Your task to perform on an android device: Search for "logitech g933" on ebay, select the first entry, add it to the cart, then select checkout. Image 0: 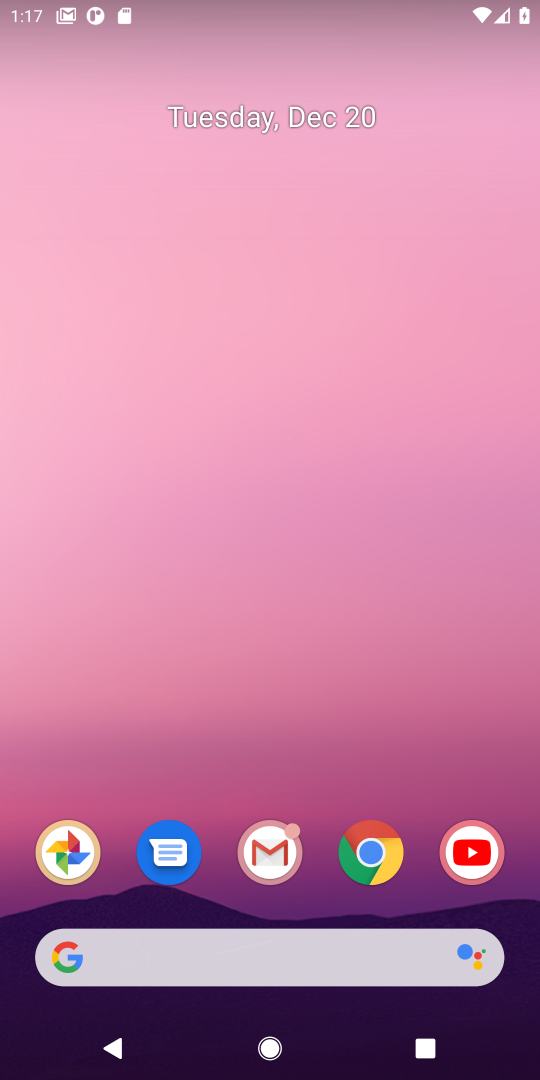
Step 0: click (372, 862)
Your task to perform on an android device: Search for "logitech g933" on ebay, select the first entry, add it to the cart, then select checkout. Image 1: 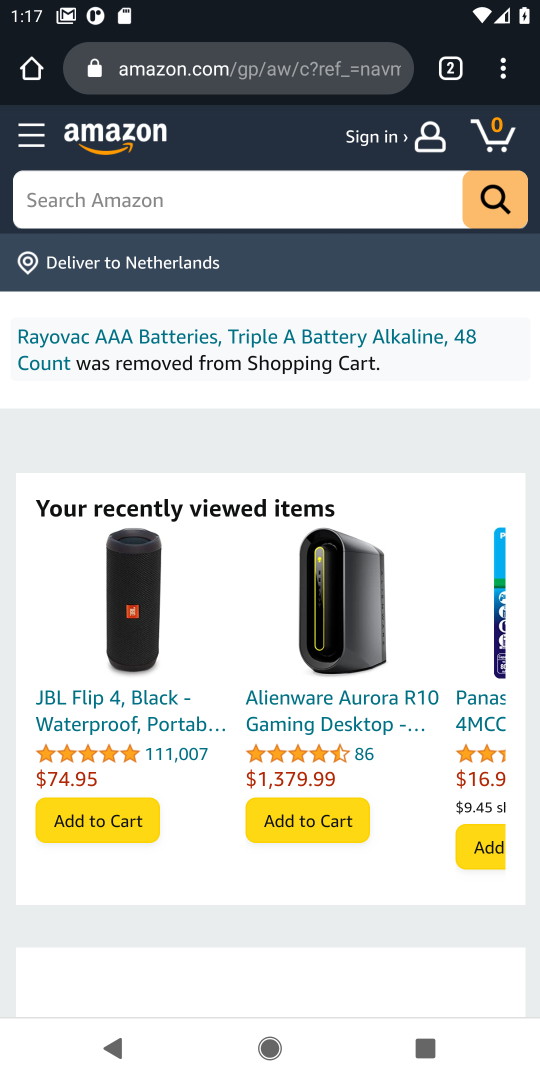
Step 1: click (198, 79)
Your task to perform on an android device: Search for "logitech g933" on ebay, select the first entry, add it to the cart, then select checkout. Image 2: 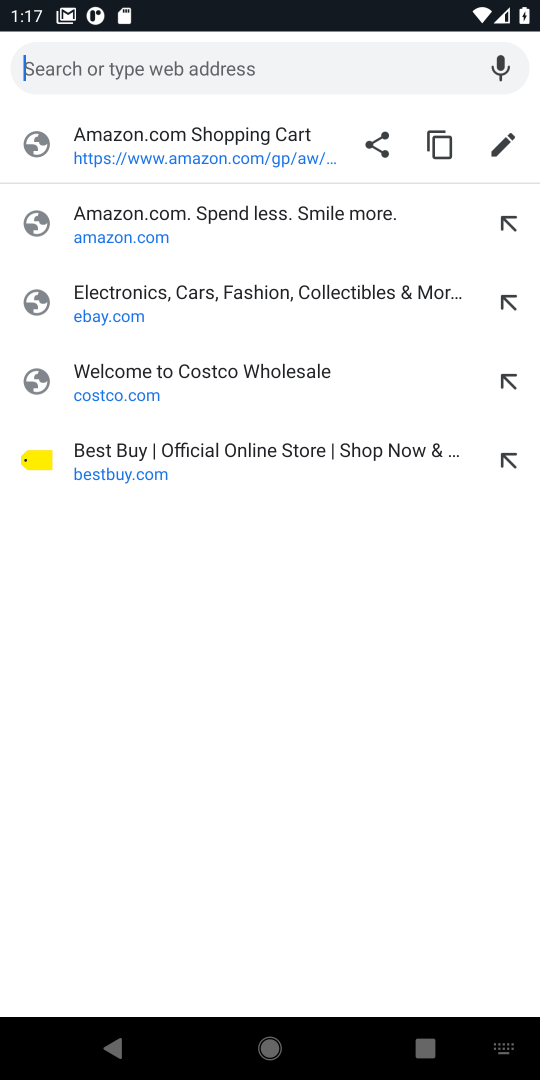
Step 2: click (111, 303)
Your task to perform on an android device: Search for "logitech g933" on ebay, select the first entry, add it to the cart, then select checkout. Image 3: 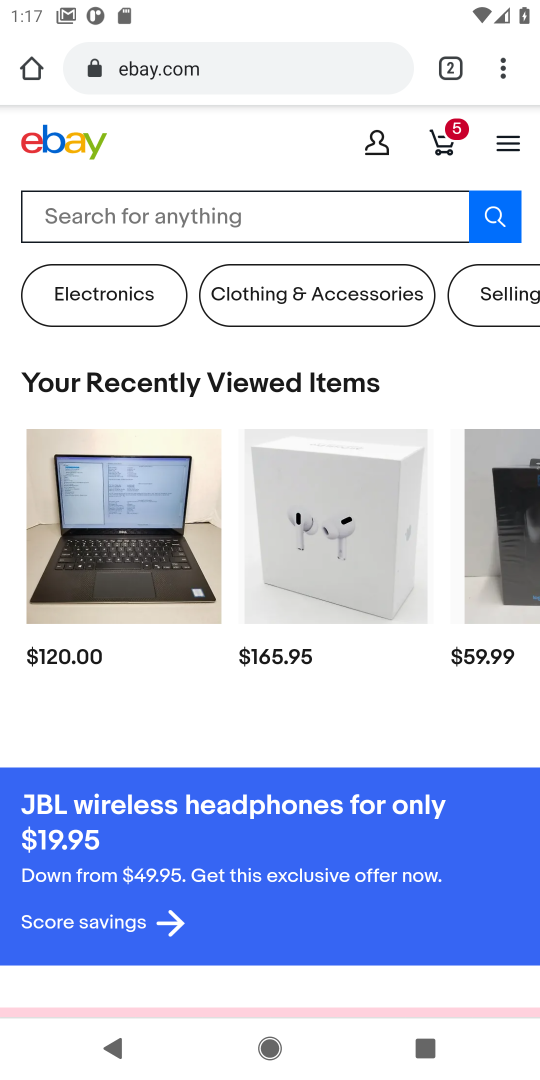
Step 3: click (90, 209)
Your task to perform on an android device: Search for "logitech g933" on ebay, select the first entry, add it to the cart, then select checkout. Image 4: 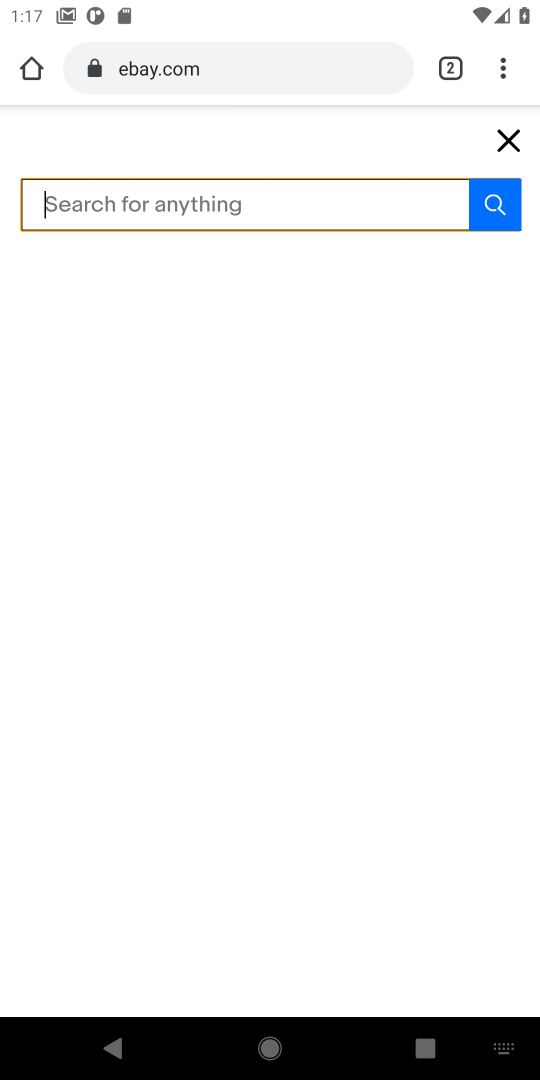
Step 4: type "logitech g933"
Your task to perform on an android device: Search for "logitech g933" on ebay, select the first entry, add it to the cart, then select checkout. Image 5: 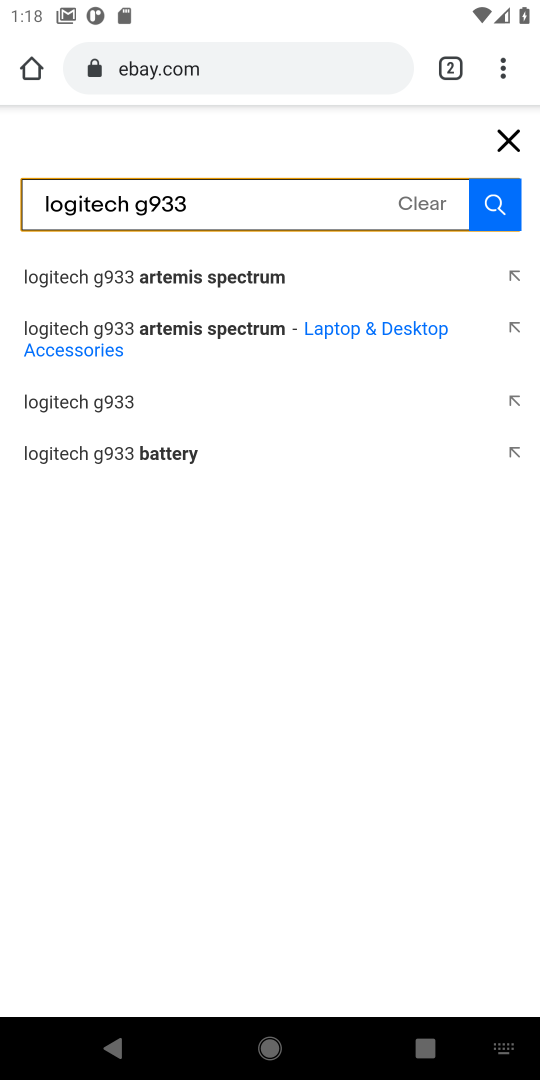
Step 5: click (56, 407)
Your task to perform on an android device: Search for "logitech g933" on ebay, select the first entry, add it to the cart, then select checkout. Image 6: 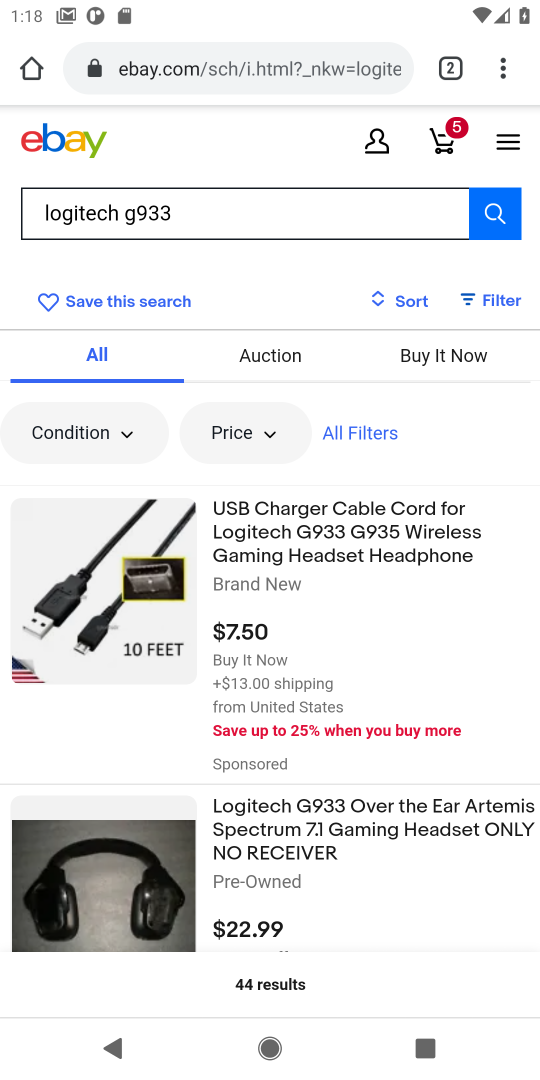
Step 6: click (300, 553)
Your task to perform on an android device: Search for "logitech g933" on ebay, select the first entry, add it to the cart, then select checkout. Image 7: 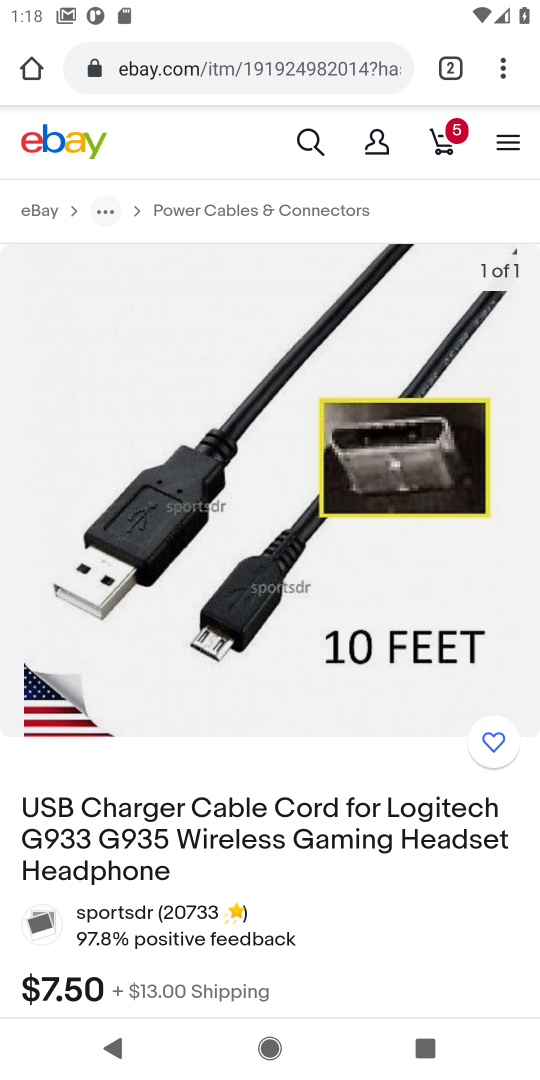
Step 7: drag from (301, 775) to (302, 431)
Your task to perform on an android device: Search for "logitech g933" on ebay, select the first entry, add it to the cart, then select checkout. Image 8: 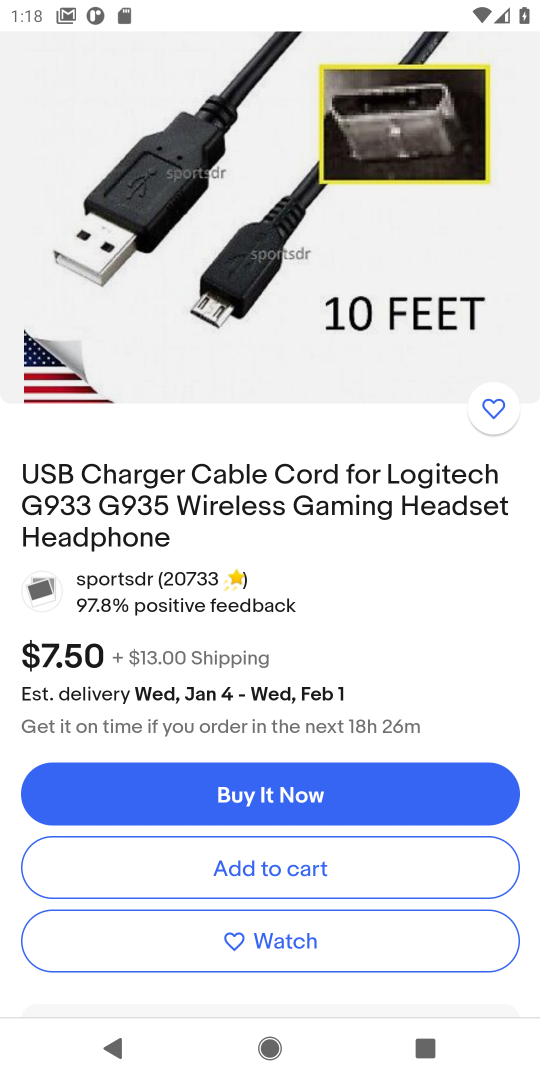
Step 8: click (263, 871)
Your task to perform on an android device: Search for "logitech g933" on ebay, select the first entry, add it to the cart, then select checkout. Image 9: 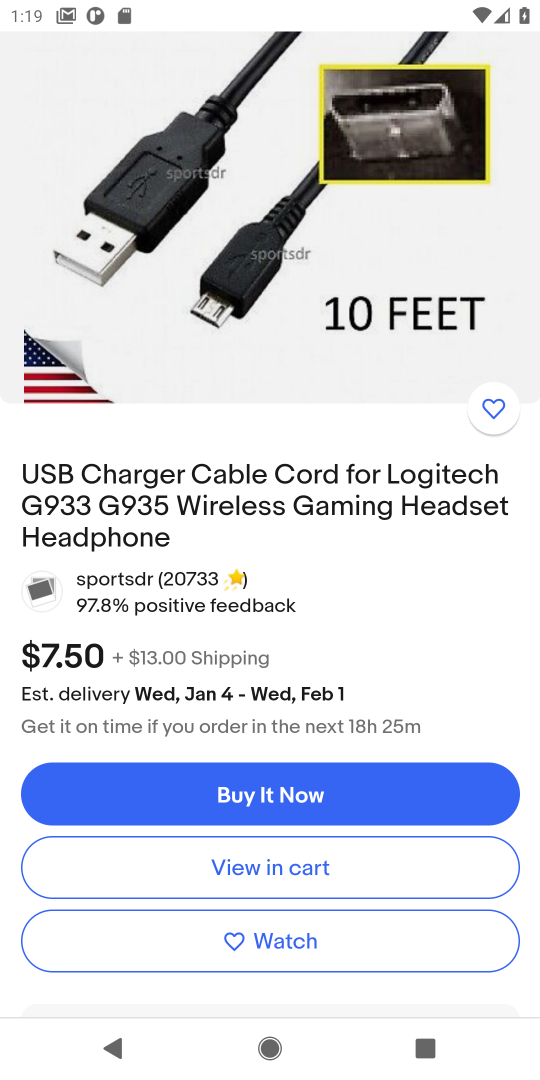
Step 9: click (263, 871)
Your task to perform on an android device: Search for "logitech g933" on ebay, select the first entry, add it to the cart, then select checkout. Image 10: 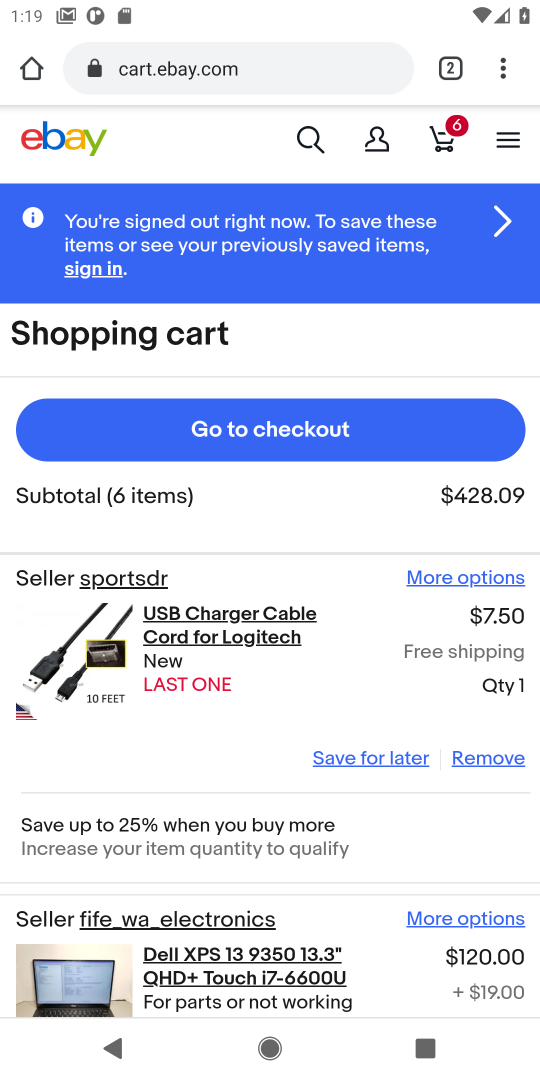
Step 10: click (320, 443)
Your task to perform on an android device: Search for "logitech g933" on ebay, select the first entry, add it to the cart, then select checkout. Image 11: 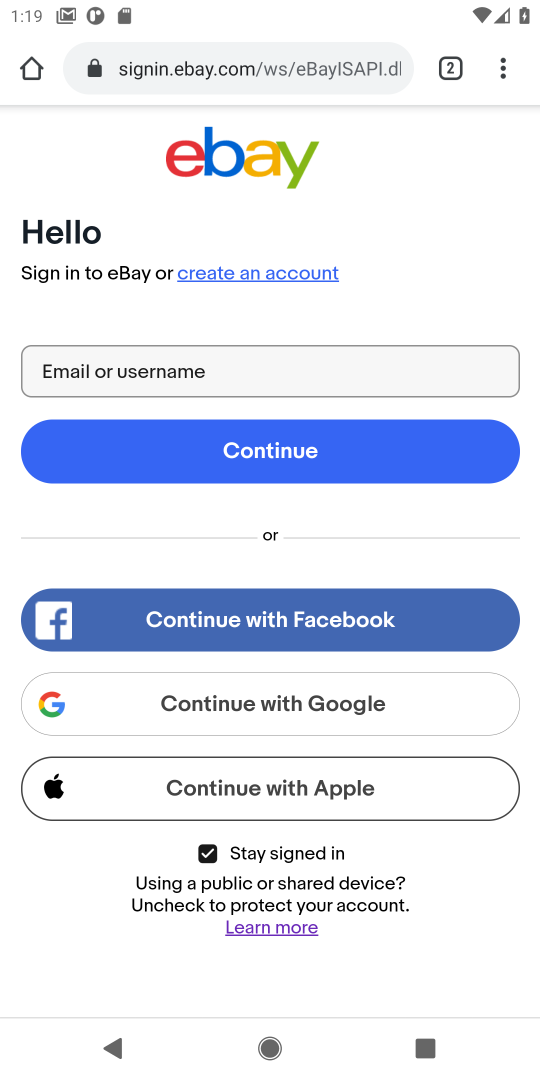
Step 11: task complete